Your task to perform on an android device: change the upload size in google photos Image 0: 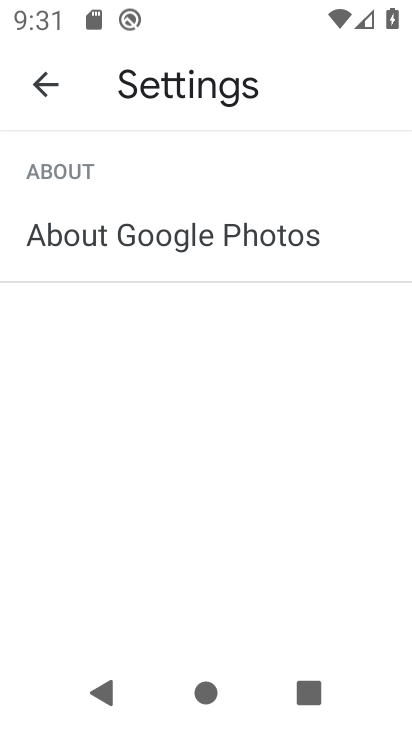
Step 0: press home button
Your task to perform on an android device: change the upload size in google photos Image 1: 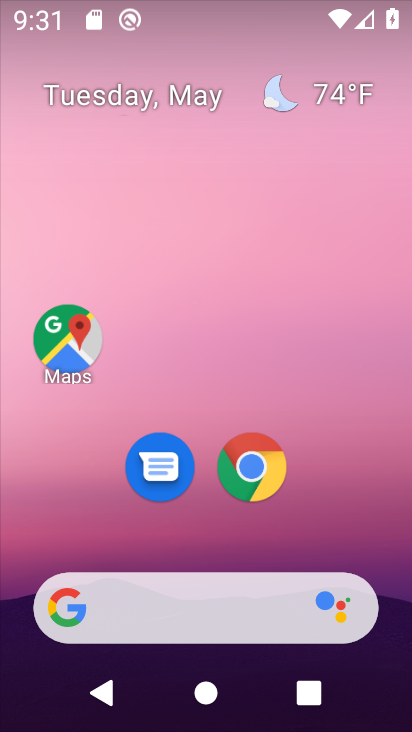
Step 1: drag from (364, 522) to (338, 0)
Your task to perform on an android device: change the upload size in google photos Image 2: 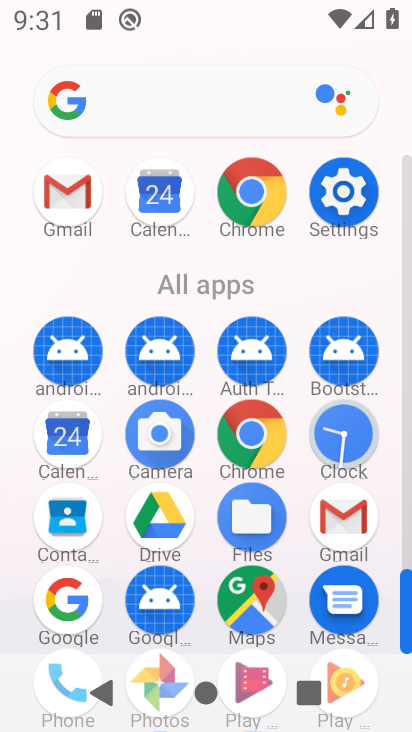
Step 2: drag from (274, 552) to (287, 182)
Your task to perform on an android device: change the upload size in google photos Image 3: 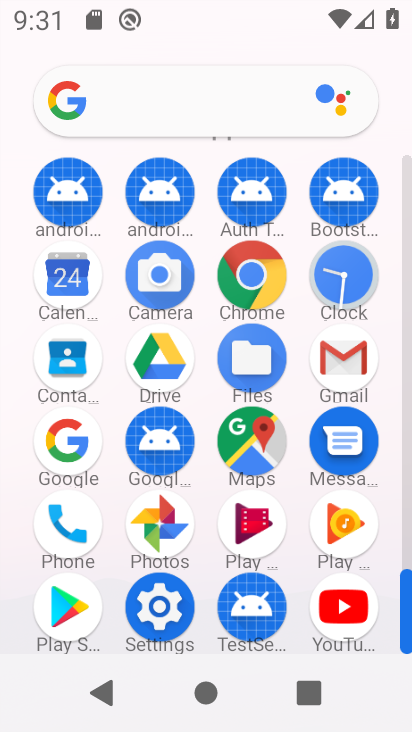
Step 3: click (157, 515)
Your task to perform on an android device: change the upload size in google photos Image 4: 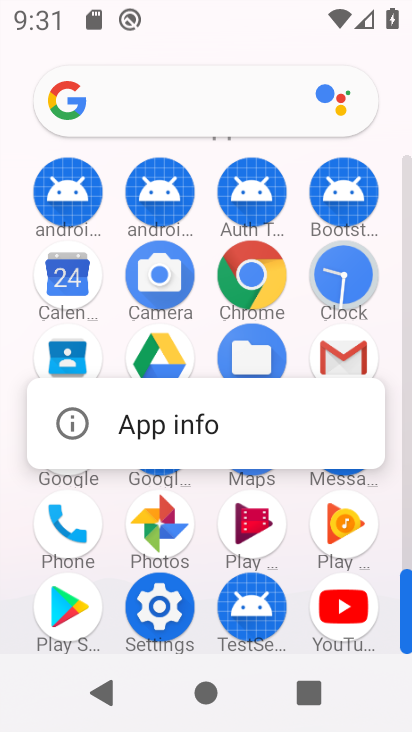
Step 4: click (172, 533)
Your task to perform on an android device: change the upload size in google photos Image 5: 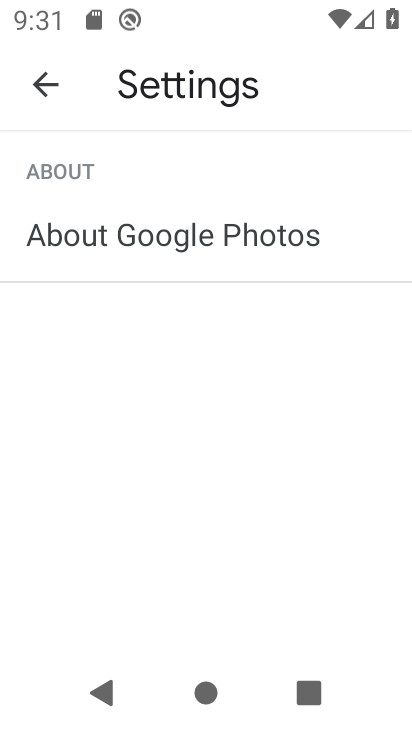
Step 5: click (53, 82)
Your task to perform on an android device: change the upload size in google photos Image 6: 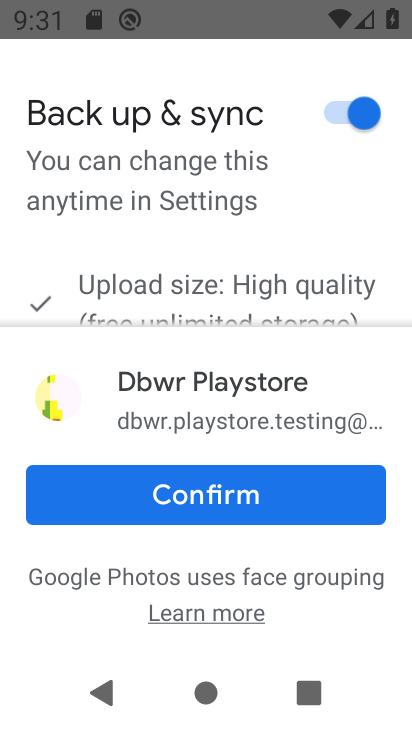
Step 6: click (189, 515)
Your task to perform on an android device: change the upload size in google photos Image 7: 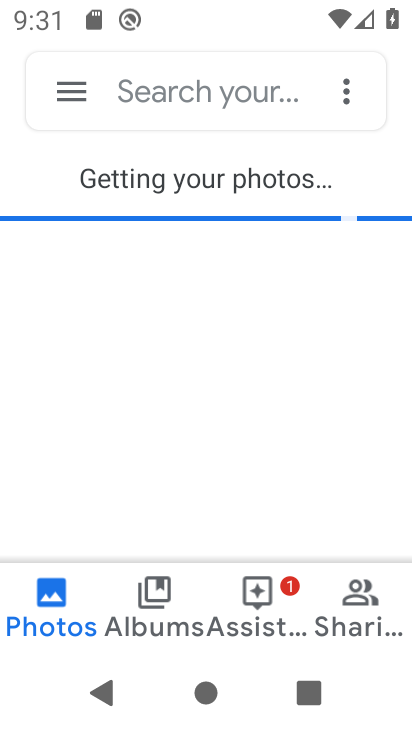
Step 7: click (60, 88)
Your task to perform on an android device: change the upload size in google photos Image 8: 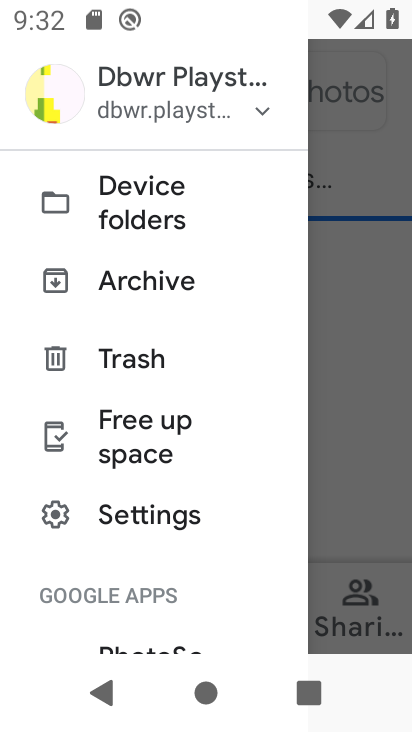
Step 8: click (172, 517)
Your task to perform on an android device: change the upload size in google photos Image 9: 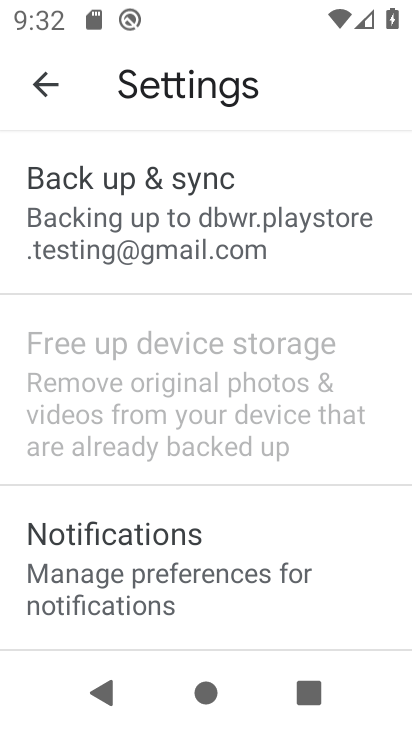
Step 9: drag from (256, 540) to (278, 302)
Your task to perform on an android device: change the upload size in google photos Image 10: 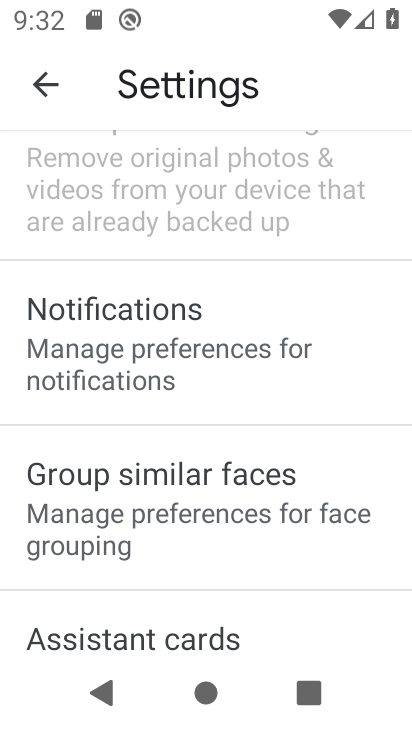
Step 10: drag from (219, 182) to (157, 460)
Your task to perform on an android device: change the upload size in google photos Image 11: 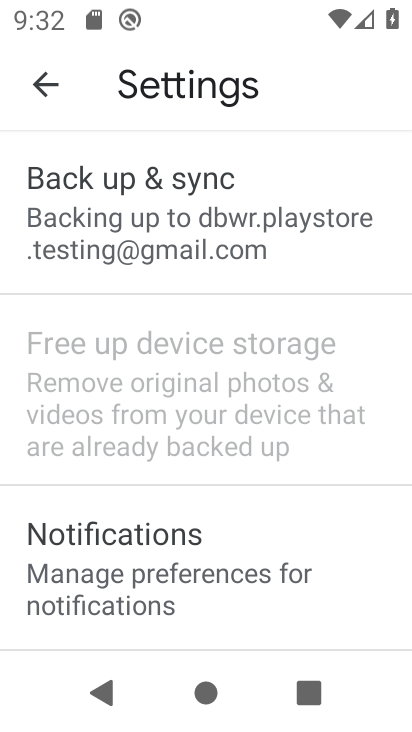
Step 11: click (176, 238)
Your task to perform on an android device: change the upload size in google photos Image 12: 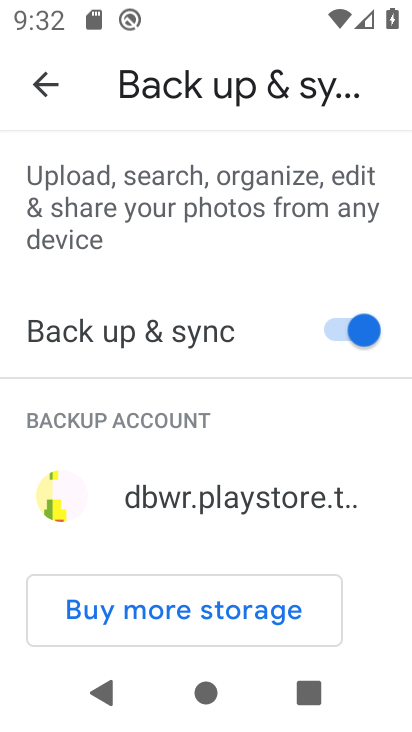
Step 12: drag from (112, 526) to (139, 248)
Your task to perform on an android device: change the upload size in google photos Image 13: 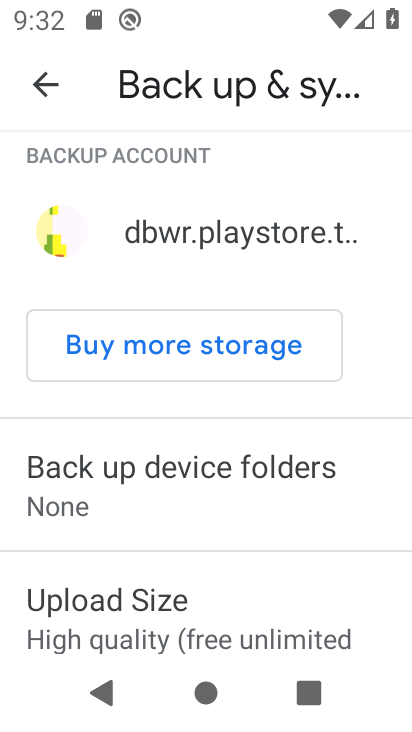
Step 13: click (119, 619)
Your task to perform on an android device: change the upload size in google photos Image 14: 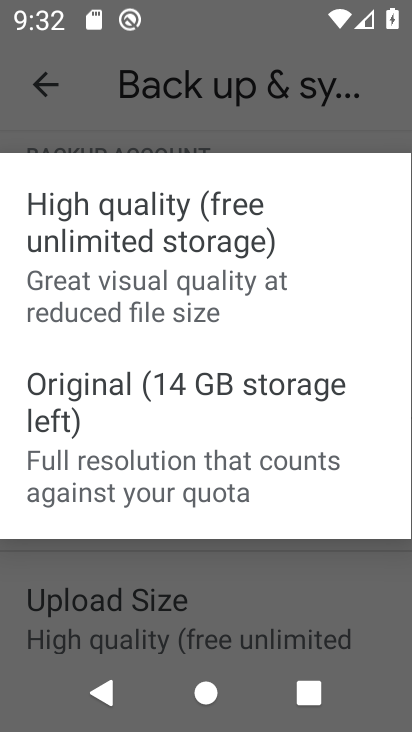
Step 14: click (145, 396)
Your task to perform on an android device: change the upload size in google photos Image 15: 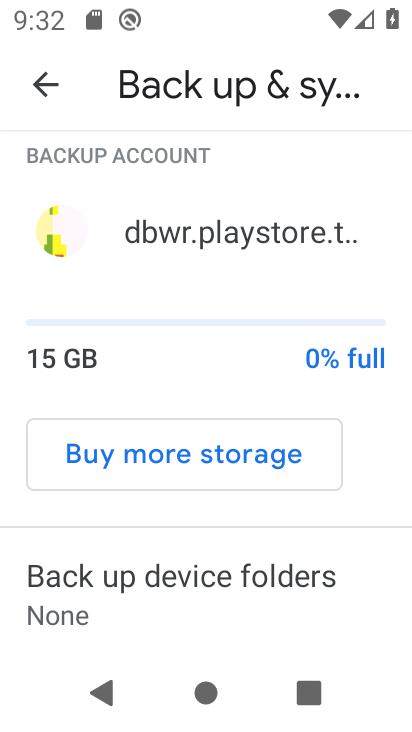
Step 15: task complete